Your task to perform on an android device: Go to Yahoo.com Image 0: 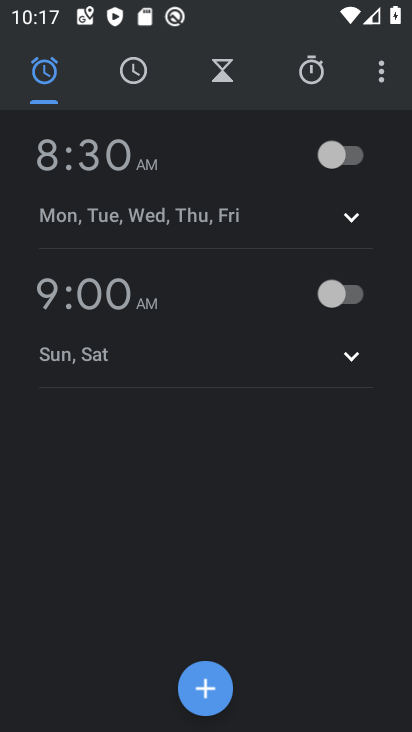
Step 0: press home button
Your task to perform on an android device: Go to Yahoo.com Image 1: 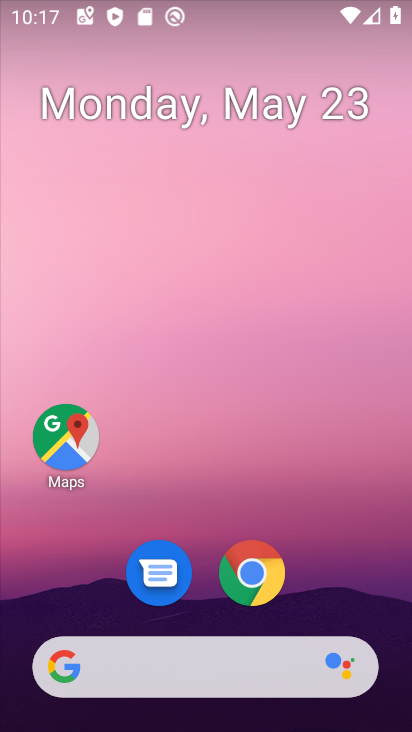
Step 1: click (265, 566)
Your task to perform on an android device: Go to Yahoo.com Image 2: 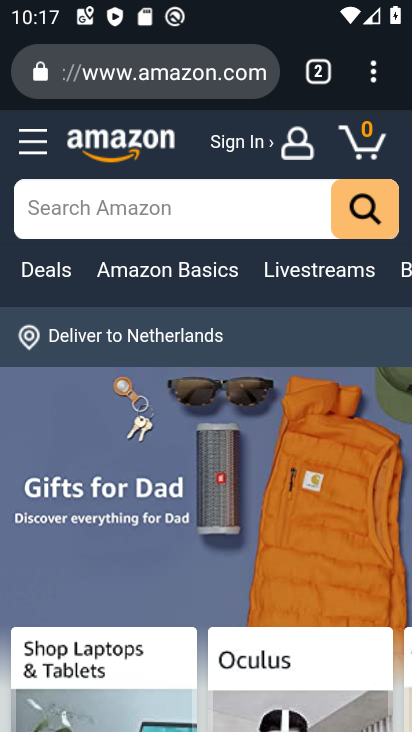
Step 2: click (217, 83)
Your task to perform on an android device: Go to Yahoo.com Image 3: 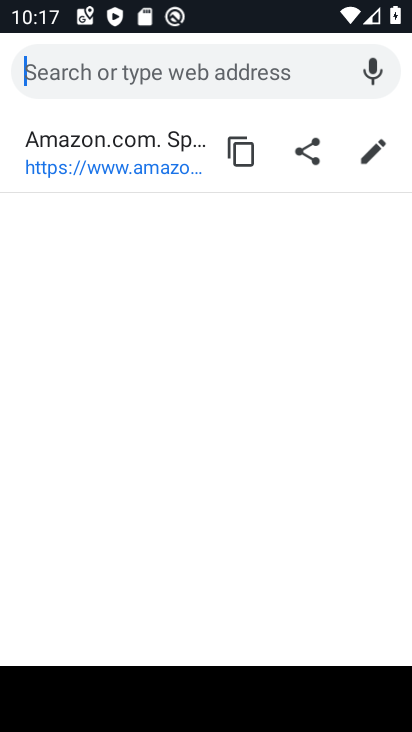
Step 3: type "yahoo"
Your task to perform on an android device: Go to Yahoo.com Image 4: 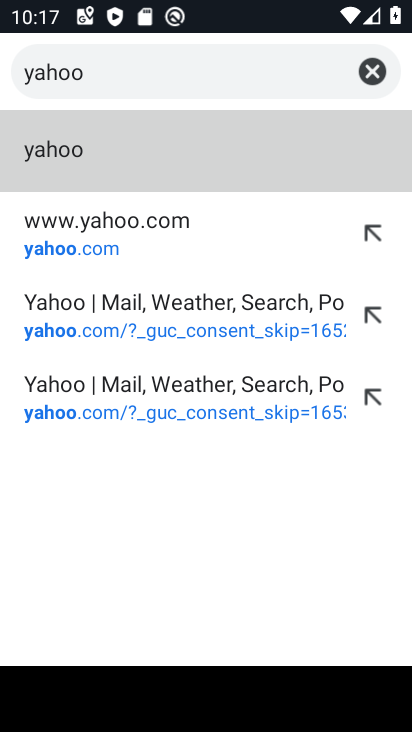
Step 4: click (250, 229)
Your task to perform on an android device: Go to Yahoo.com Image 5: 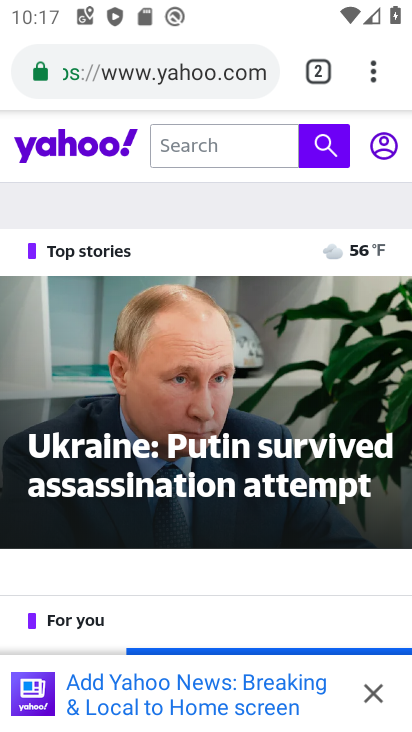
Step 5: task complete